Your task to perform on an android device: Open the map Image 0: 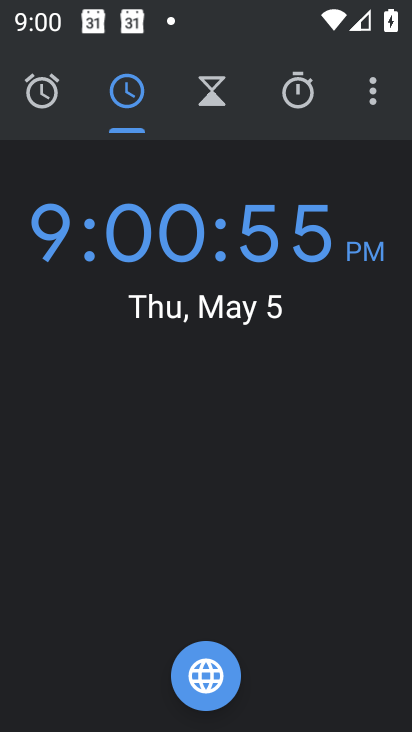
Step 0: press home button
Your task to perform on an android device: Open the map Image 1: 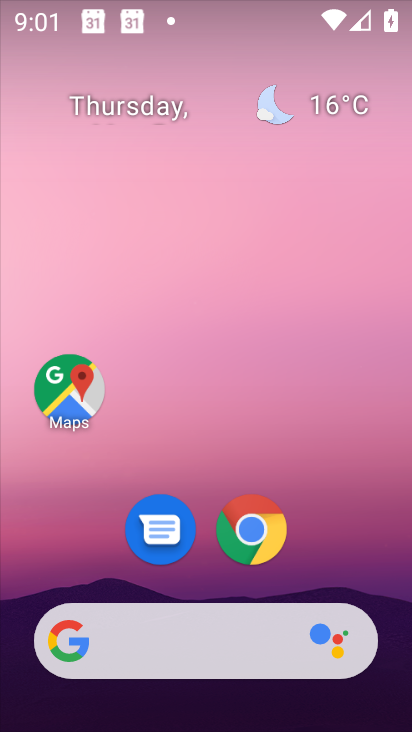
Step 1: click (66, 372)
Your task to perform on an android device: Open the map Image 2: 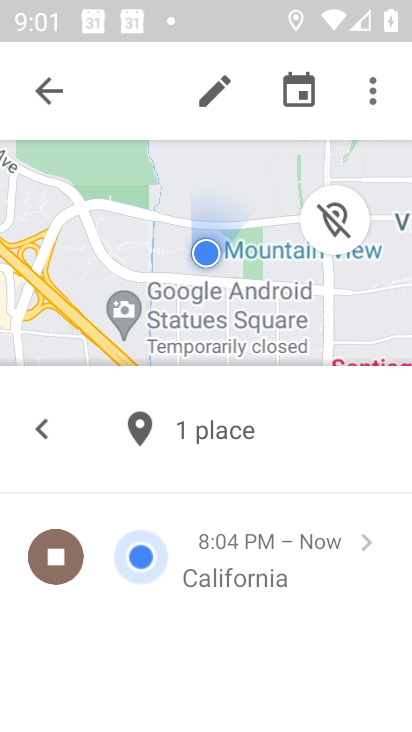
Step 2: click (61, 96)
Your task to perform on an android device: Open the map Image 3: 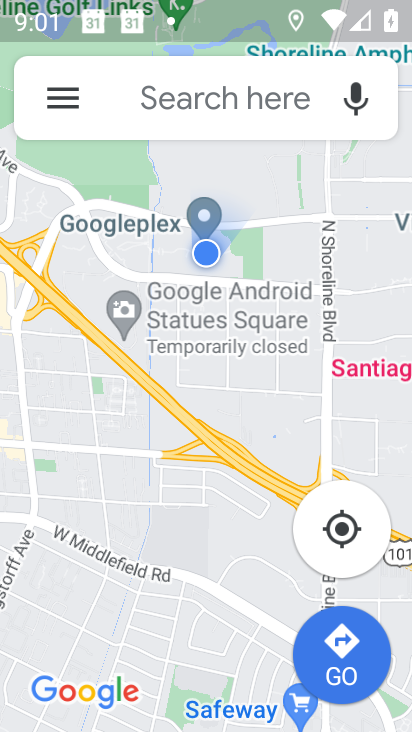
Step 3: task complete